Your task to perform on an android device: turn off wifi Image 0: 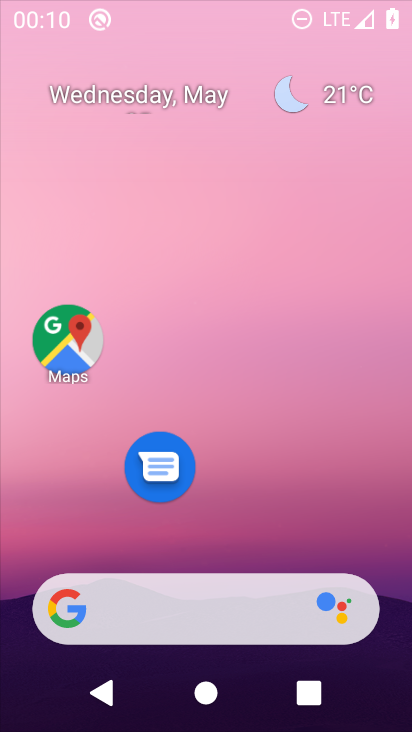
Step 0: click (313, 188)
Your task to perform on an android device: turn off wifi Image 1: 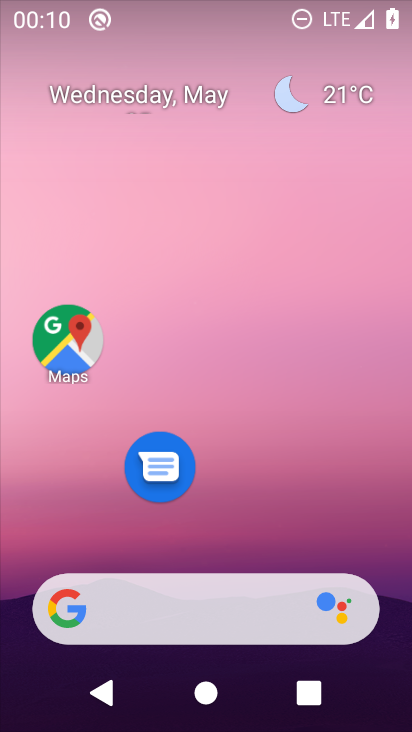
Step 1: drag from (229, 521) to (294, 235)
Your task to perform on an android device: turn off wifi Image 2: 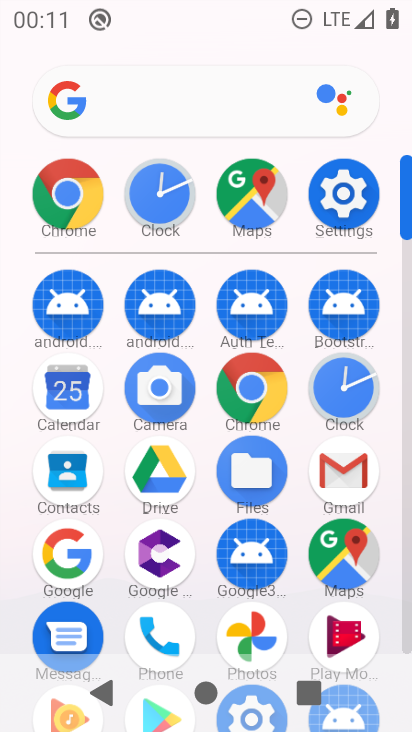
Step 2: click (360, 189)
Your task to perform on an android device: turn off wifi Image 3: 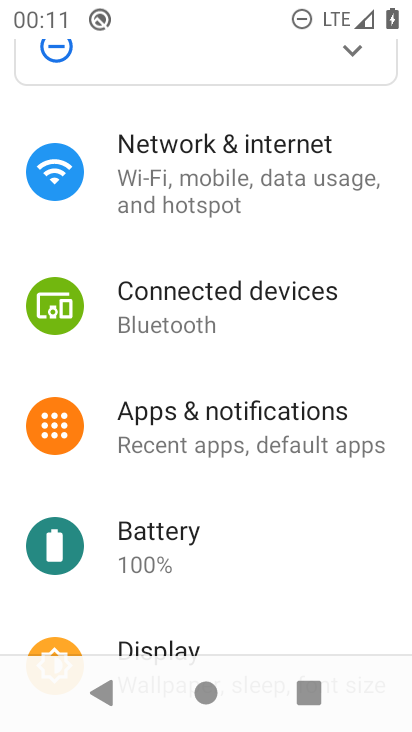
Step 3: click (209, 153)
Your task to perform on an android device: turn off wifi Image 4: 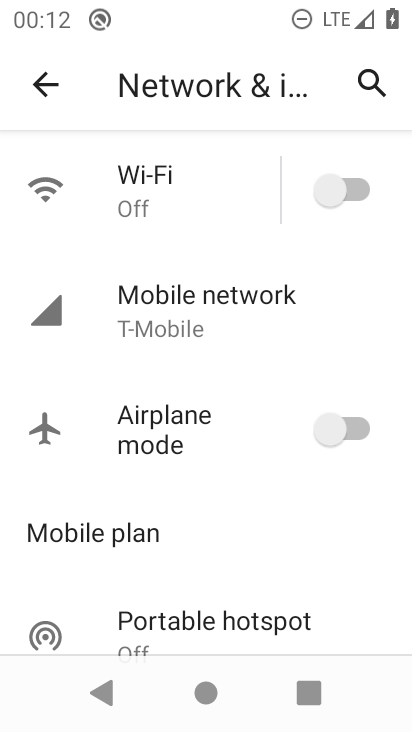
Step 4: task complete